Your task to perform on an android device: turn off translation in the chrome app Image 0: 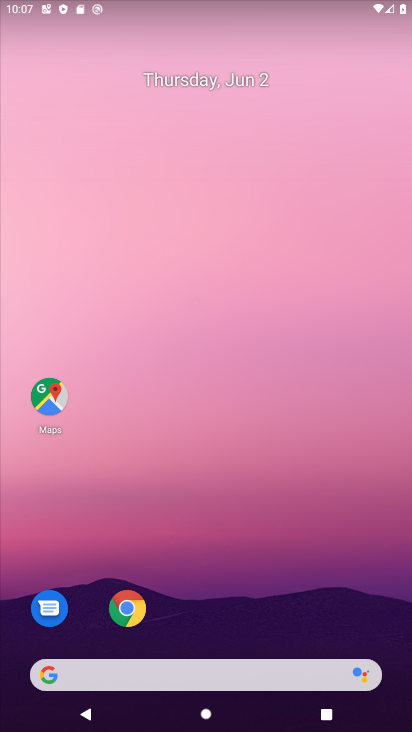
Step 0: drag from (162, 647) to (237, 124)
Your task to perform on an android device: turn off translation in the chrome app Image 1: 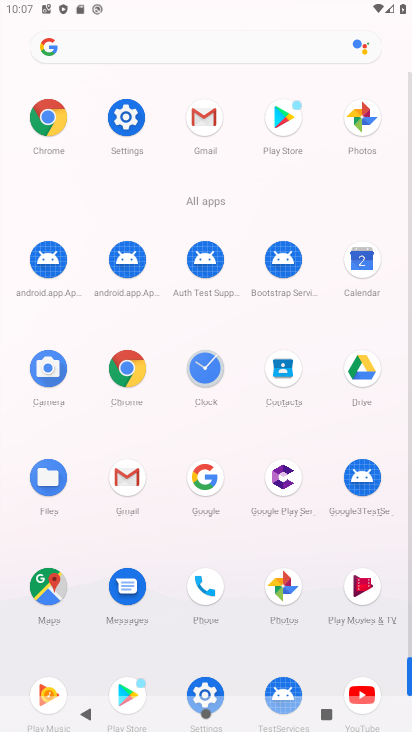
Step 1: click (140, 367)
Your task to perform on an android device: turn off translation in the chrome app Image 2: 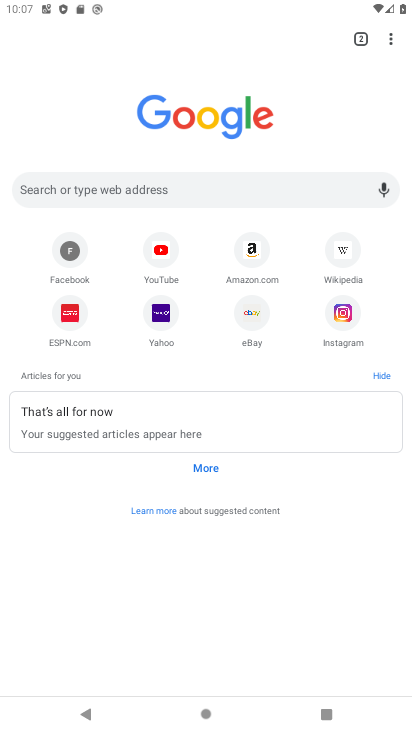
Step 2: drag from (405, 38) to (257, 332)
Your task to perform on an android device: turn off translation in the chrome app Image 3: 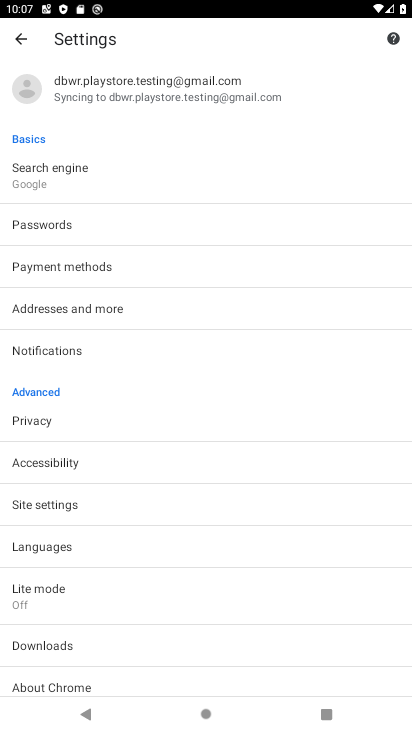
Step 3: drag from (105, 567) to (159, 251)
Your task to perform on an android device: turn off translation in the chrome app Image 4: 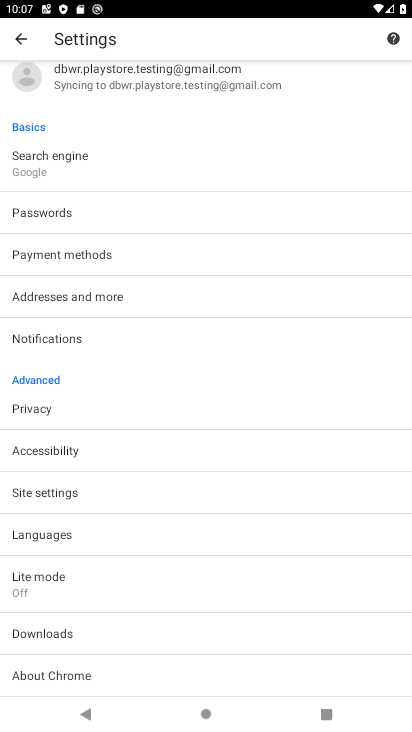
Step 4: click (106, 524)
Your task to perform on an android device: turn off translation in the chrome app Image 5: 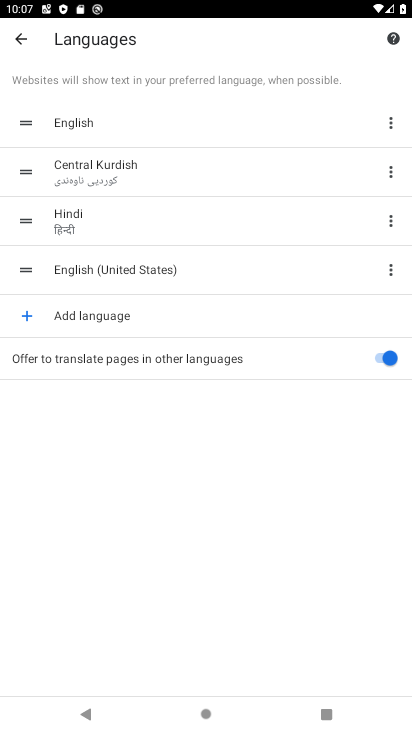
Step 5: click (399, 361)
Your task to perform on an android device: turn off translation in the chrome app Image 6: 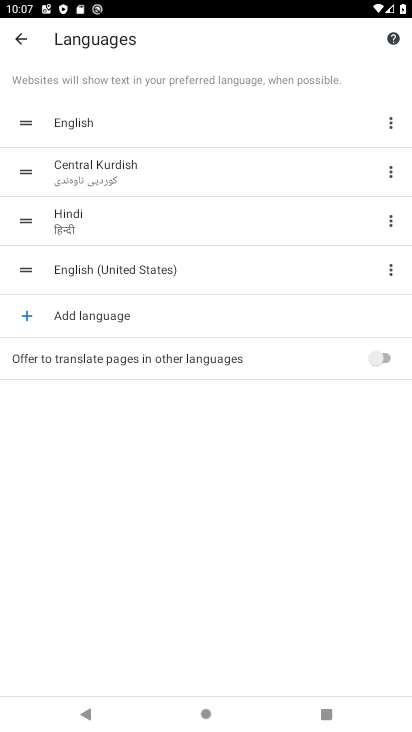
Step 6: task complete